Your task to perform on an android device: open chrome and create a bookmark for the current page Image 0: 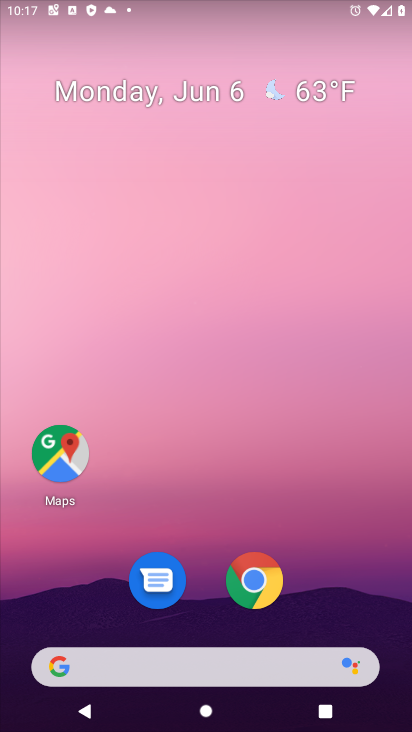
Step 0: drag from (360, 594) to (198, 67)
Your task to perform on an android device: open chrome and create a bookmark for the current page Image 1: 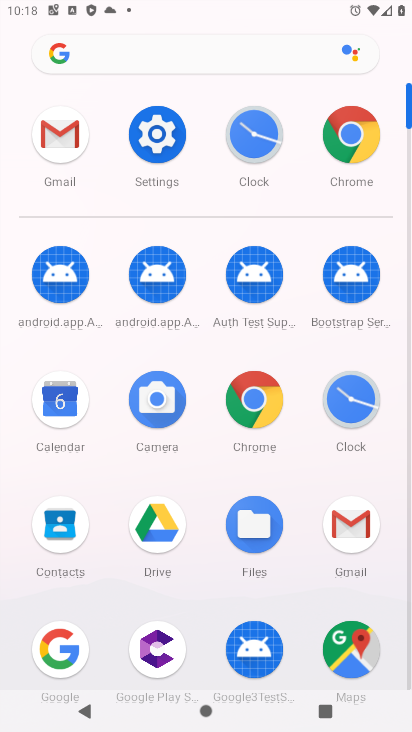
Step 1: click (341, 153)
Your task to perform on an android device: open chrome and create a bookmark for the current page Image 2: 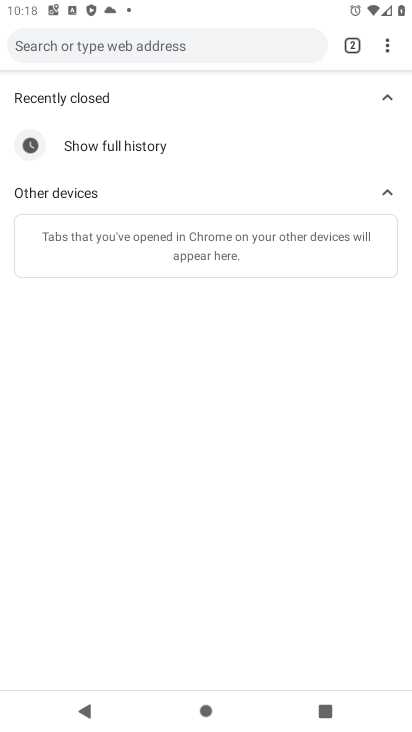
Step 2: task complete